Your task to perform on an android device: Open wifi settings Image 0: 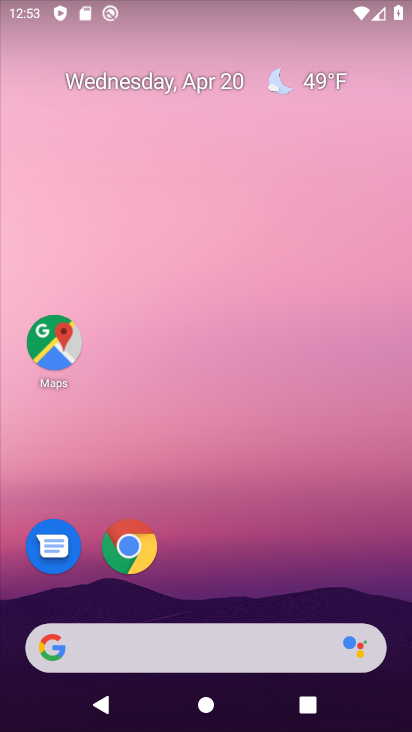
Step 0: drag from (154, 6) to (120, 449)
Your task to perform on an android device: Open wifi settings Image 1: 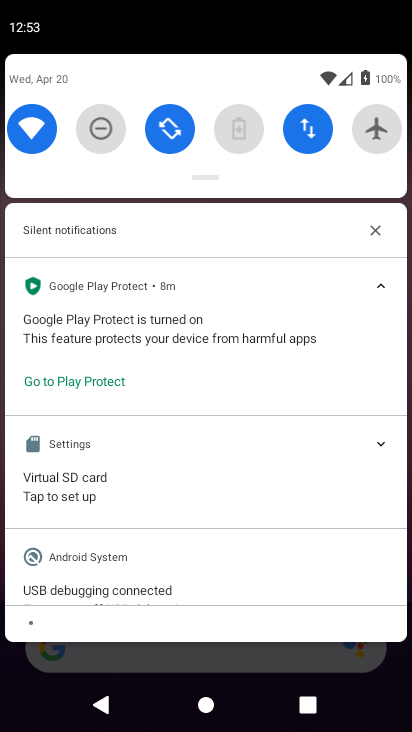
Step 1: click (35, 128)
Your task to perform on an android device: Open wifi settings Image 2: 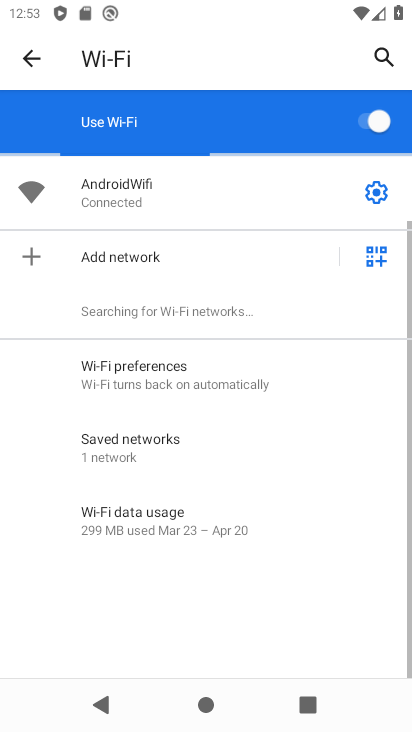
Step 2: task complete